Your task to perform on an android device: Turn on the flashlight Image 0: 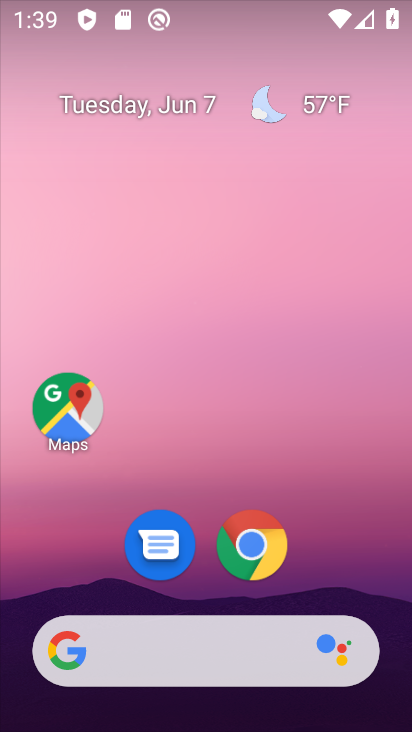
Step 0: drag from (248, 10) to (273, 553)
Your task to perform on an android device: Turn on the flashlight Image 1: 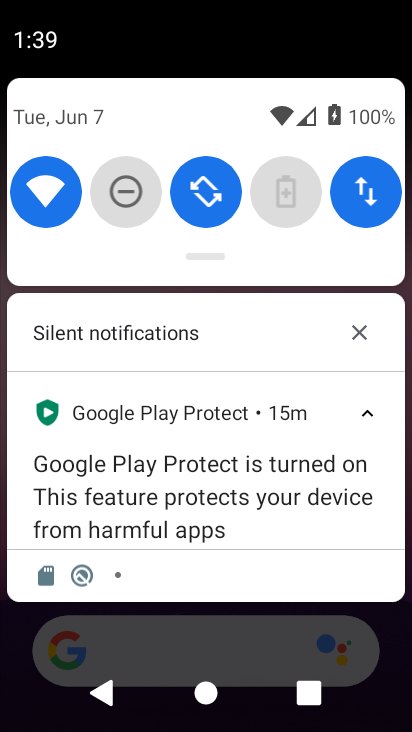
Step 1: task complete